Your task to perform on an android device: all mails in gmail Image 0: 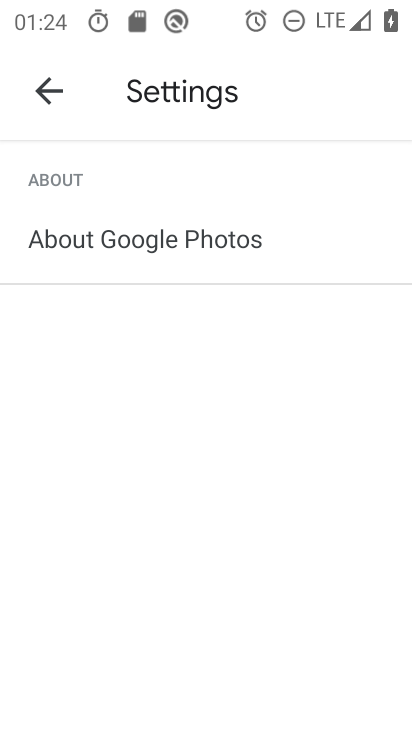
Step 0: press home button
Your task to perform on an android device: all mails in gmail Image 1: 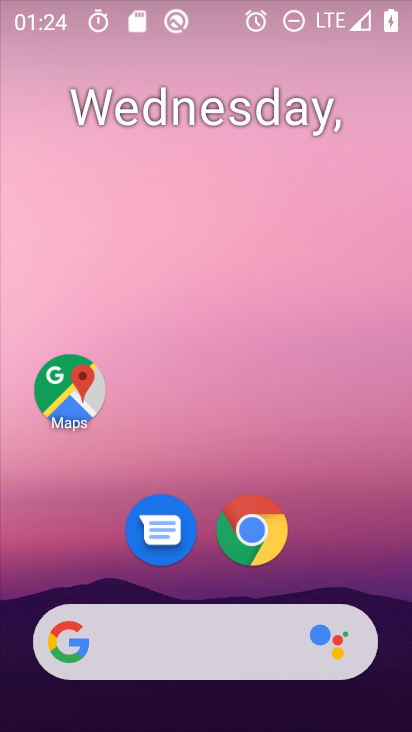
Step 1: drag from (162, 635) to (204, 114)
Your task to perform on an android device: all mails in gmail Image 2: 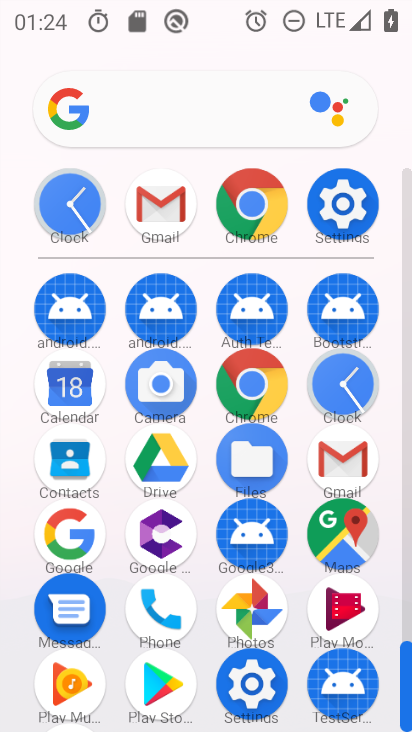
Step 2: click (156, 217)
Your task to perform on an android device: all mails in gmail Image 3: 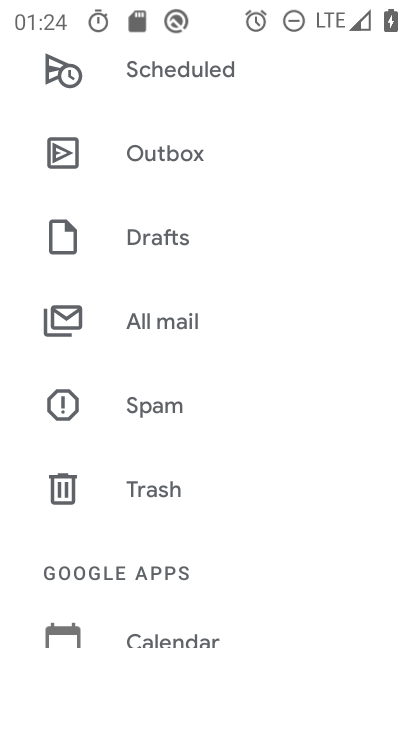
Step 3: click (168, 306)
Your task to perform on an android device: all mails in gmail Image 4: 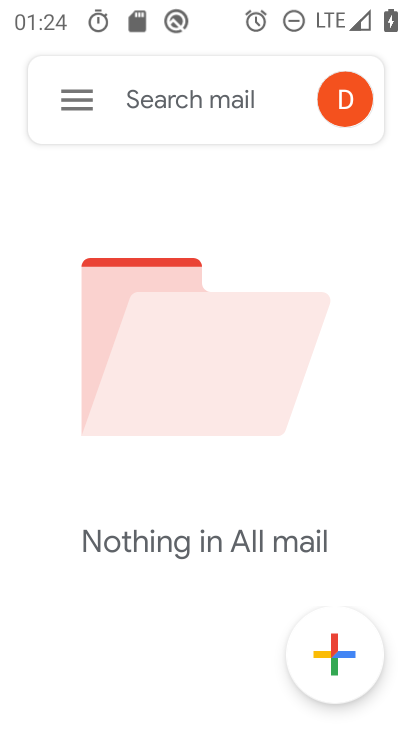
Step 4: task complete